Your task to perform on an android device: Open the calendar and show me this week's events? Image 0: 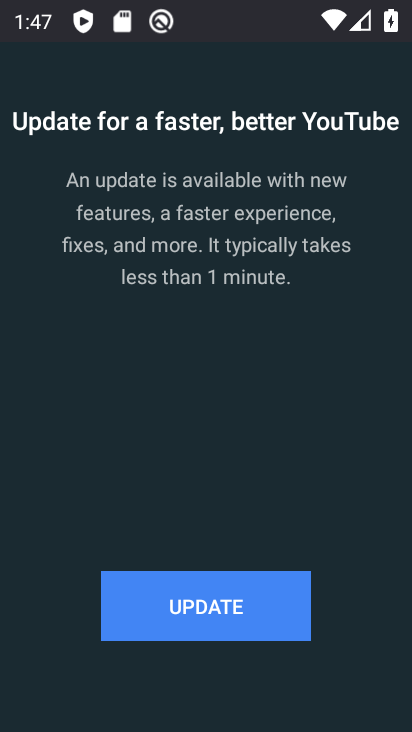
Step 0: press home button
Your task to perform on an android device: Open the calendar and show me this week's events? Image 1: 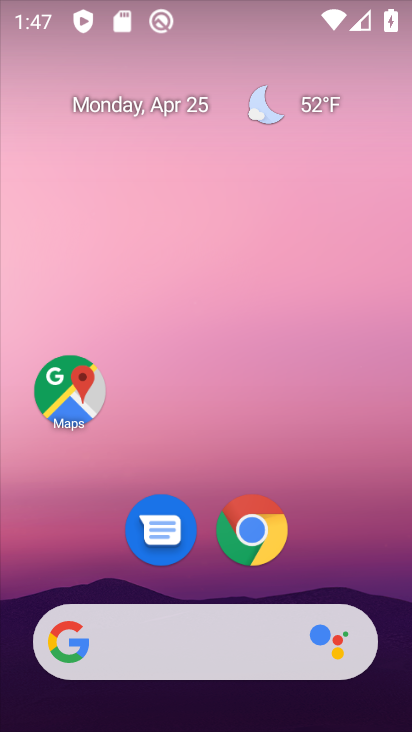
Step 1: drag from (389, 564) to (368, 175)
Your task to perform on an android device: Open the calendar and show me this week's events? Image 2: 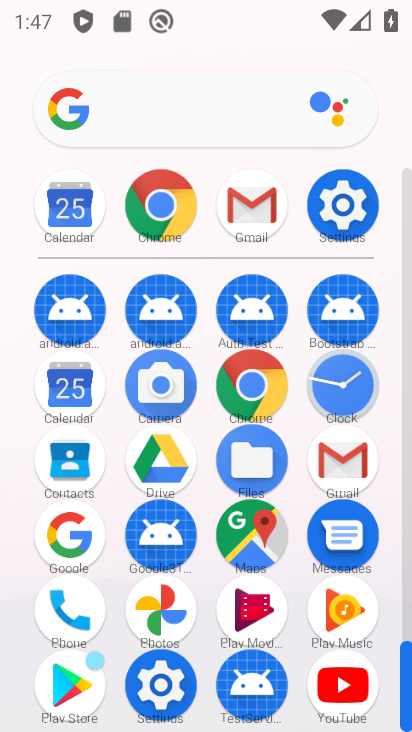
Step 2: click (63, 403)
Your task to perform on an android device: Open the calendar and show me this week's events? Image 3: 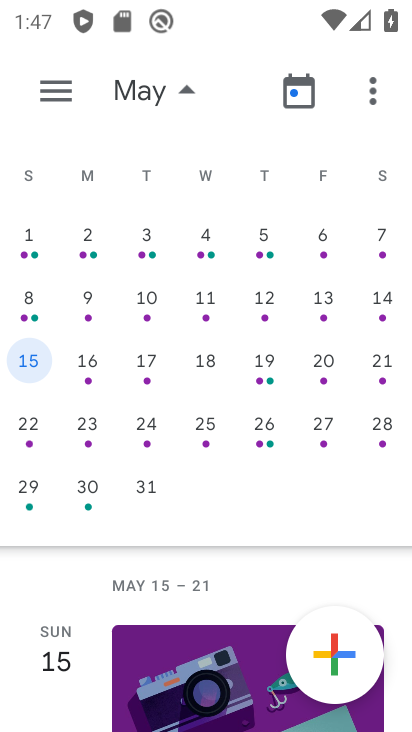
Step 3: drag from (122, 207) to (394, 229)
Your task to perform on an android device: Open the calendar and show me this week's events? Image 4: 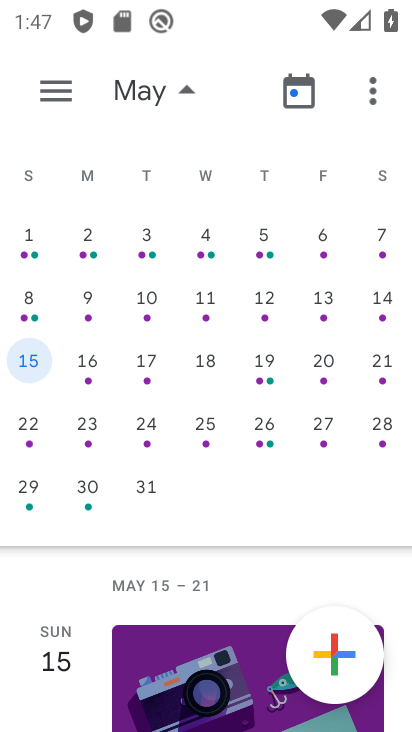
Step 4: drag from (64, 283) to (395, 284)
Your task to perform on an android device: Open the calendar and show me this week's events? Image 5: 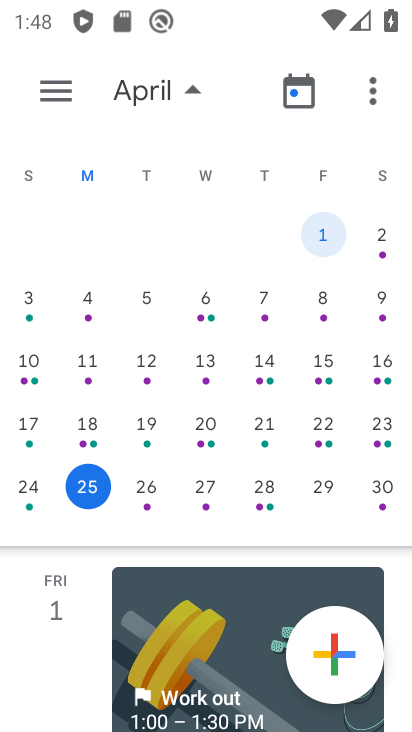
Step 5: click (152, 491)
Your task to perform on an android device: Open the calendar and show me this week's events? Image 6: 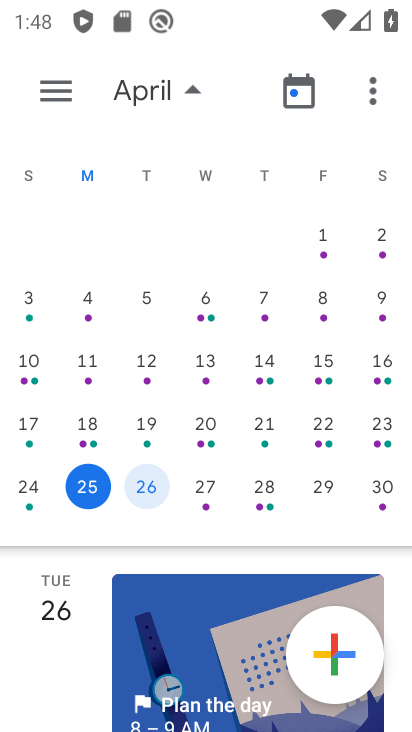
Step 6: click (212, 487)
Your task to perform on an android device: Open the calendar and show me this week's events? Image 7: 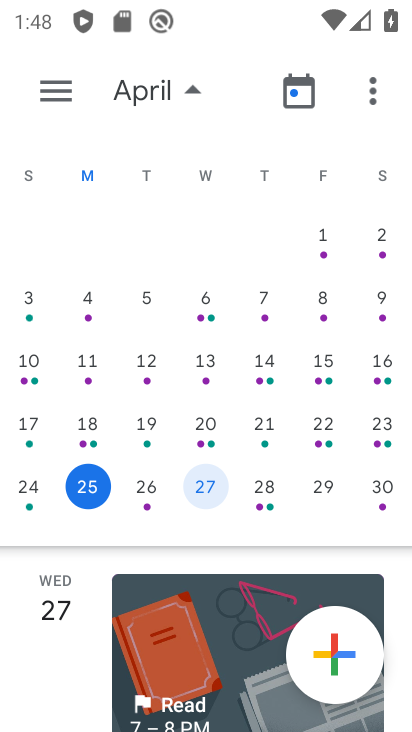
Step 7: click (273, 489)
Your task to perform on an android device: Open the calendar and show me this week's events? Image 8: 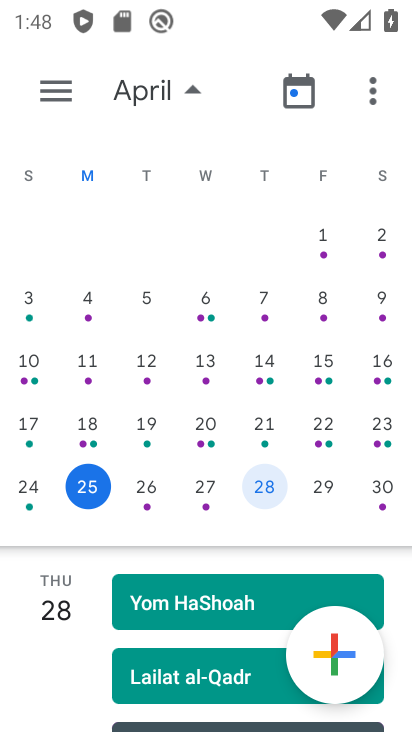
Step 8: task complete